Your task to perform on an android device: open chrome privacy settings Image 0: 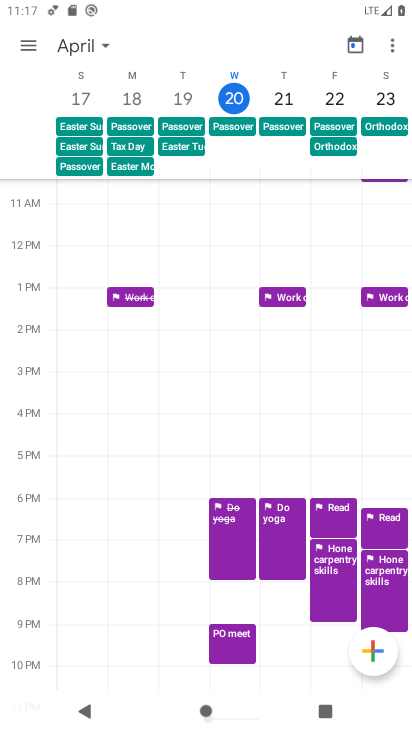
Step 0: drag from (240, 616) to (144, 7)
Your task to perform on an android device: open chrome privacy settings Image 1: 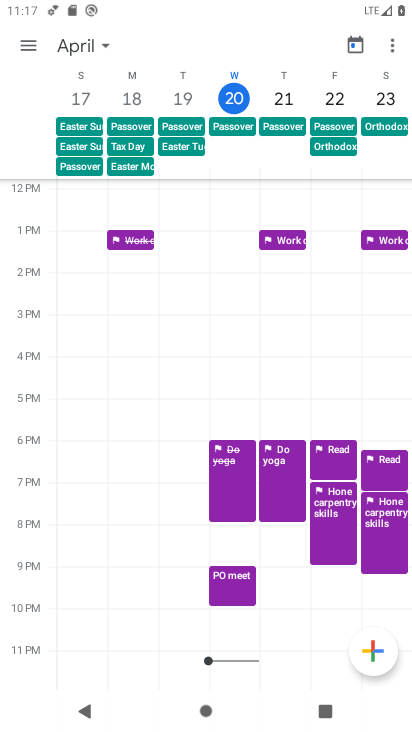
Step 1: press home button
Your task to perform on an android device: open chrome privacy settings Image 2: 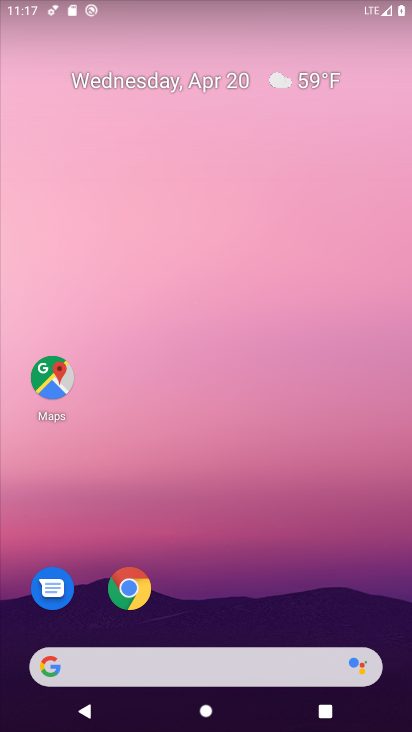
Step 2: drag from (232, 595) to (215, 0)
Your task to perform on an android device: open chrome privacy settings Image 3: 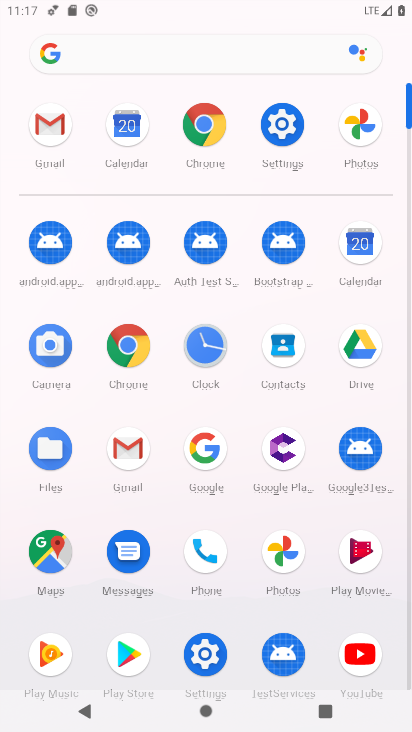
Step 3: click (205, 131)
Your task to perform on an android device: open chrome privacy settings Image 4: 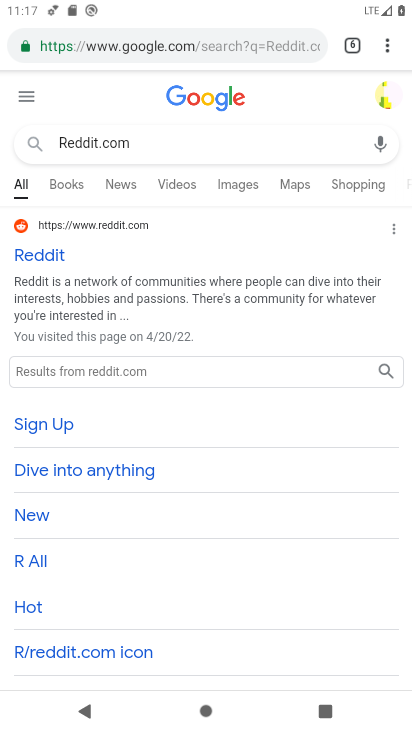
Step 4: click (387, 49)
Your task to perform on an android device: open chrome privacy settings Image 5: 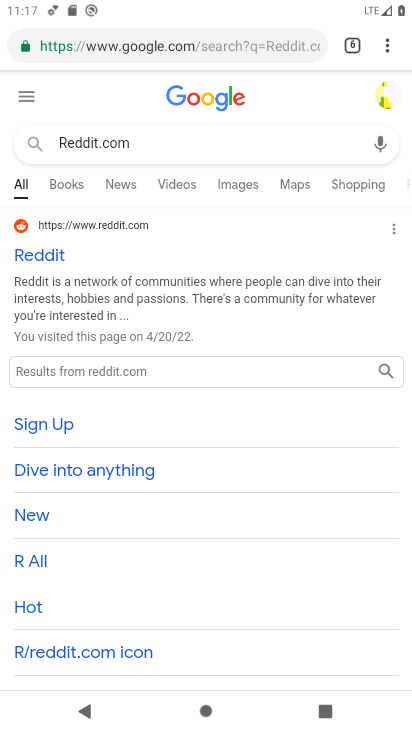
Step 5: click (386, 47)
Your task to perform on an android device: open chrome privacy settings Image 6: 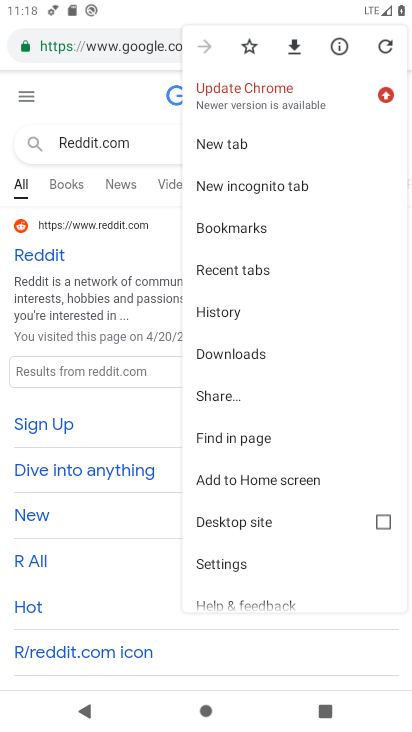
Step 6: click (230, 566)
Your task to perform on an android device: open chrome privacy settings Image 7: 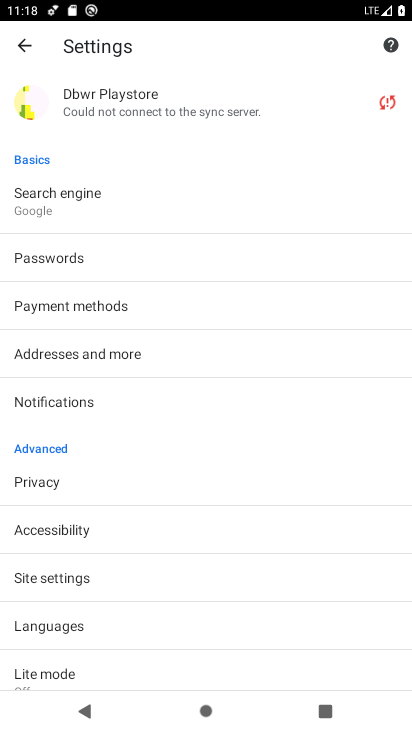
Step 7: click (34, 481)
Your task to perform on an android device: open chrome privacy settings Image 8: 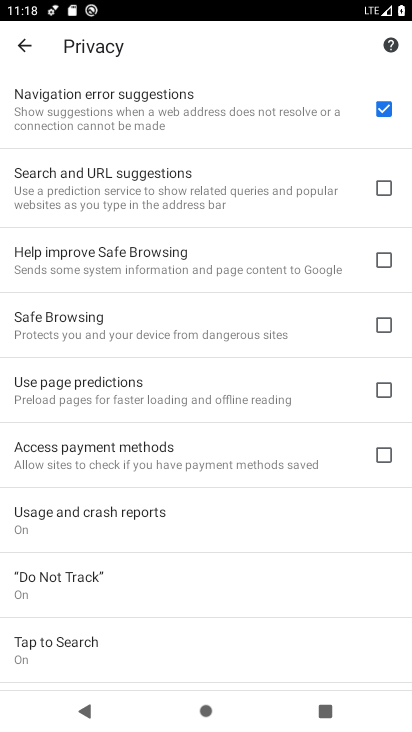
Step 8: task complete